Your task to perform on an android device: Open Chrome and go to the settings page Image 0: 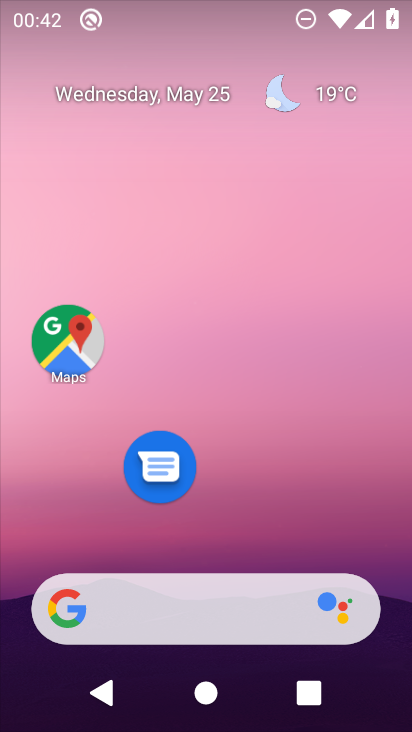
Step 0: drag from (216, 548) to (211, 158)
Your task to perform on an android device: Open Chrome and go to the settings page Image 1: 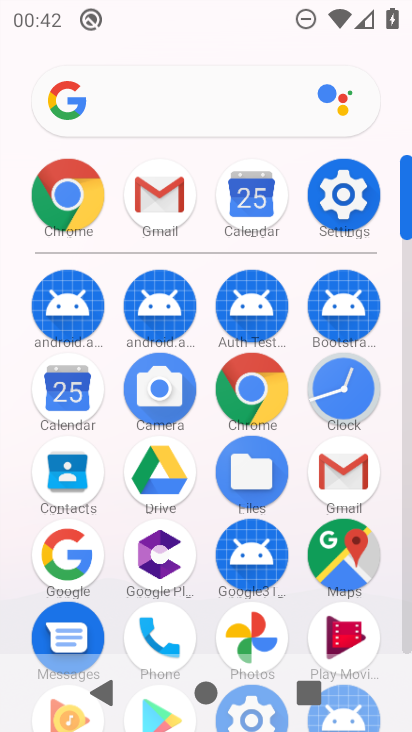
Step 1: click (340, 187)
Your task to perform on an android device: Open Chrome and go to the settings page Image 2: 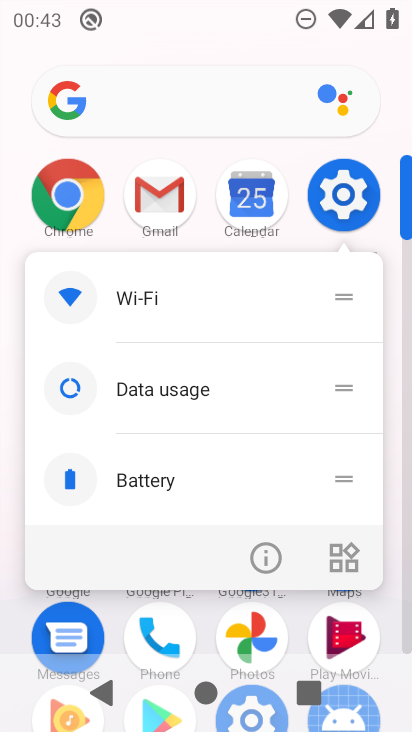
Step 2: click (61, 206)
Your task to perform on an android device: Open Chrome and go to the settings page Image 3: 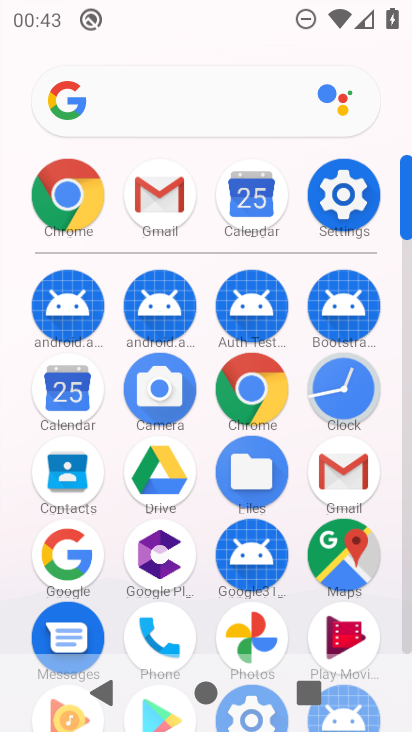
Step 3: click (69, 202)
Your task to perform on an android device: Open Chrome and go to the settings page Image 4: 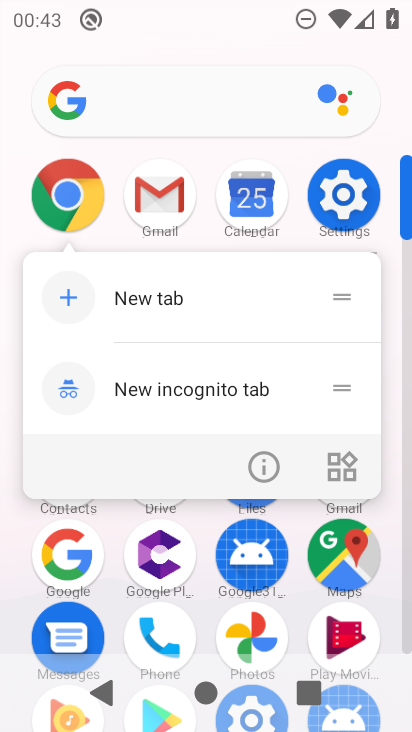
Step 4: click (255, 454)
Your task to perform on an android device: Open Chrome and go to the settings page Image 5: 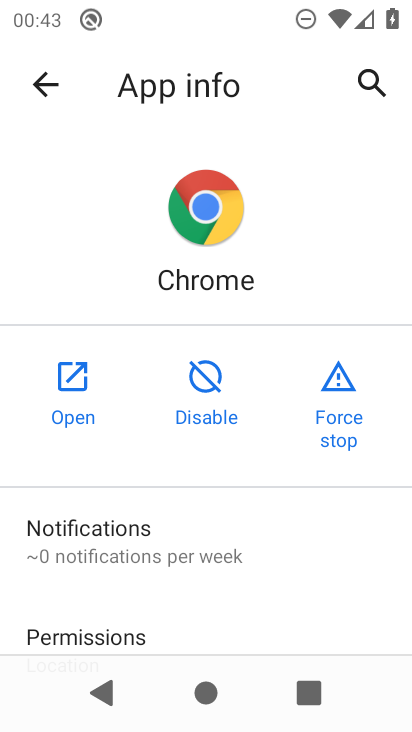
Step 5: click (73, 380)
Your task to perform on an android device: Open Chrome and go to the settings page Image 6: 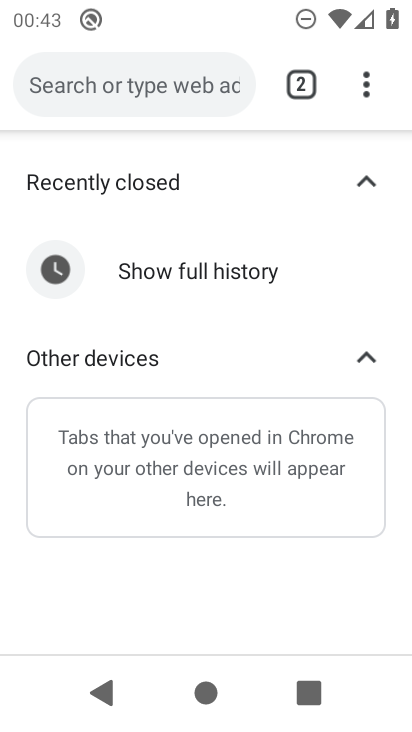
Step 6: click (369, 90)
Your task to perform on an android device: Open Chrome and go to the settings page Image 7: 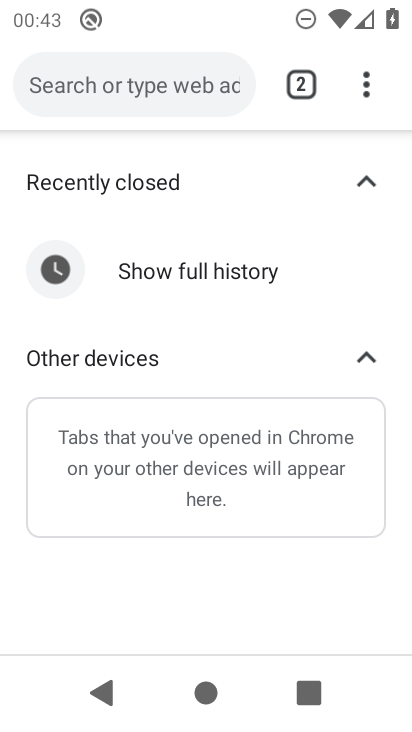
Step 7: click (365, 91)
Your task to perform on an android device: Open Chrome and go to the settings page Image 8: 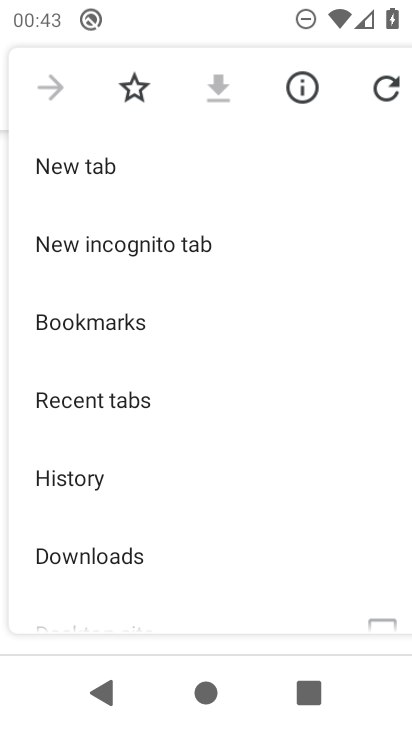
Step 8: drag from (202, 532) to (358, 73)
Your task to perform on an android device: Open Chrome and go to the settings page Image 9: 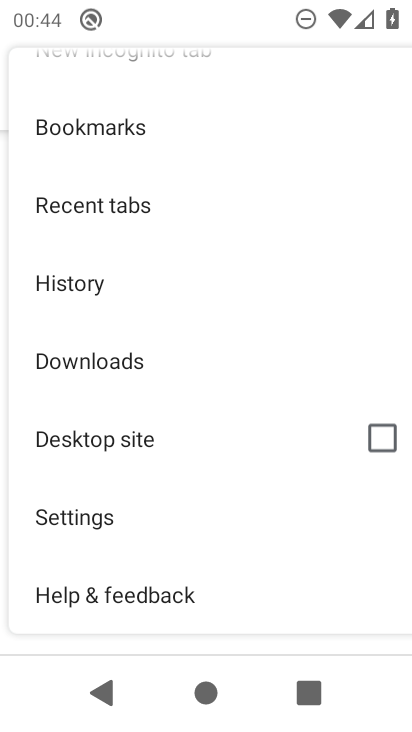
Step 9: click (115, 528)
Your task to perform on an android device: Open Chrome and go to the settings page Image 10: 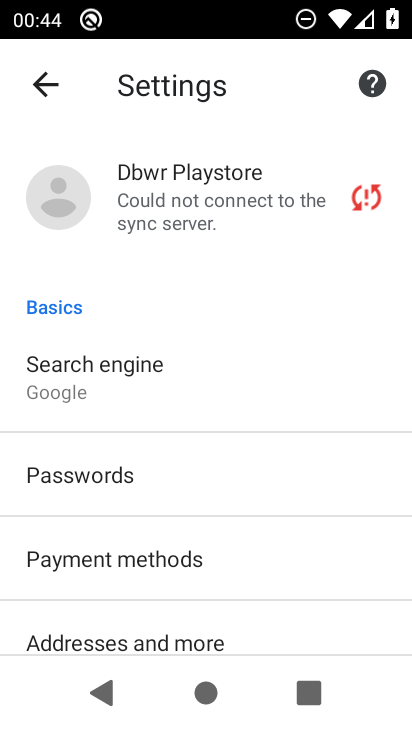
Step 10: task complete